Your task to perform on an android device: turn notification dots on Image 0: 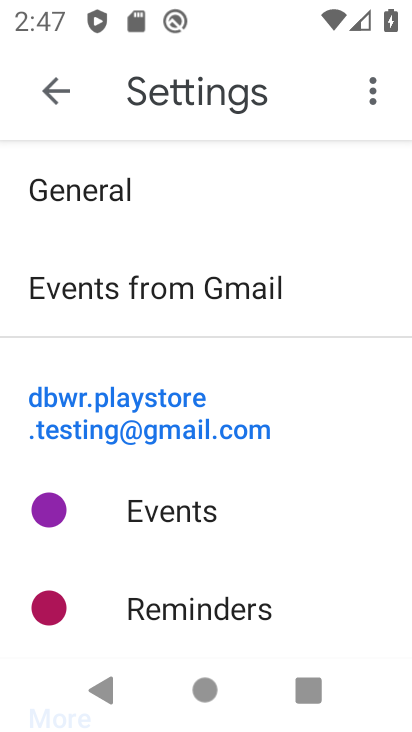
Step 0: press home button
Your task to perform on an android device: turn notification dots on Image 1: 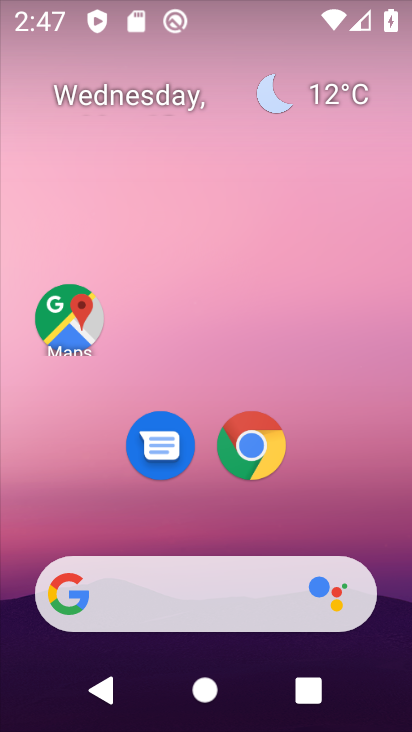
Step 1: drag from (319, 507) to (295, 171)
Your task to perform on an android device: turn notification dots on Image 2: 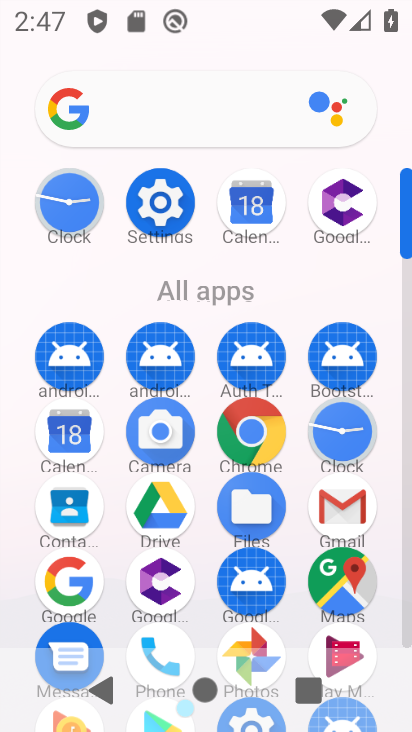
Step 2: click (149, 211)
Your task to perform on an android device: turn notification dots on Image 3: 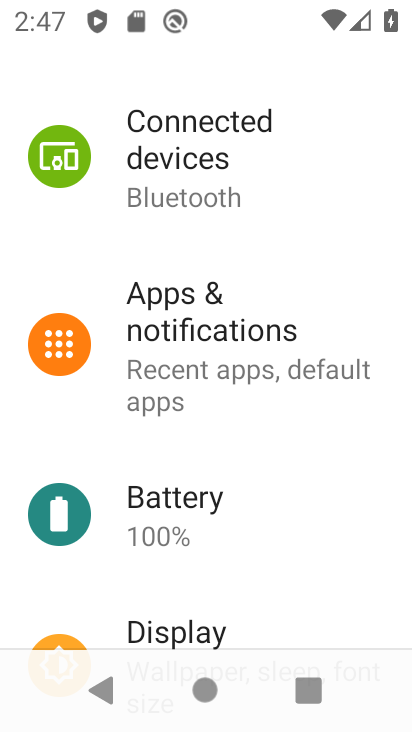
Step 3: click (266, 391)
Your task to perform on an android device: turn notification dots on Image 4: 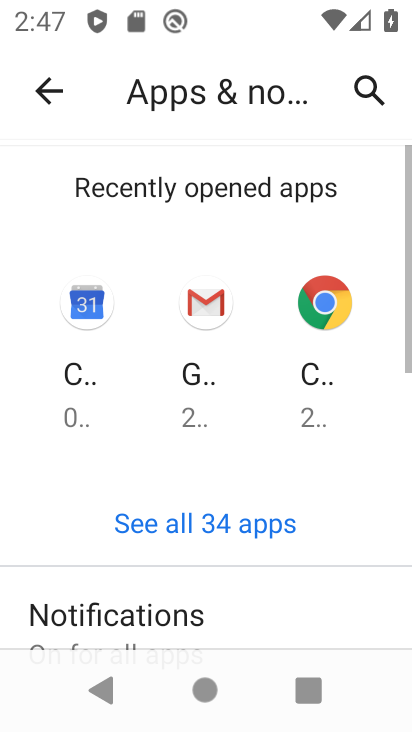
Step 4: drag from (249, 594) to (265, 216)
Your task to perform on an android device: turn notification dots on Image 5: 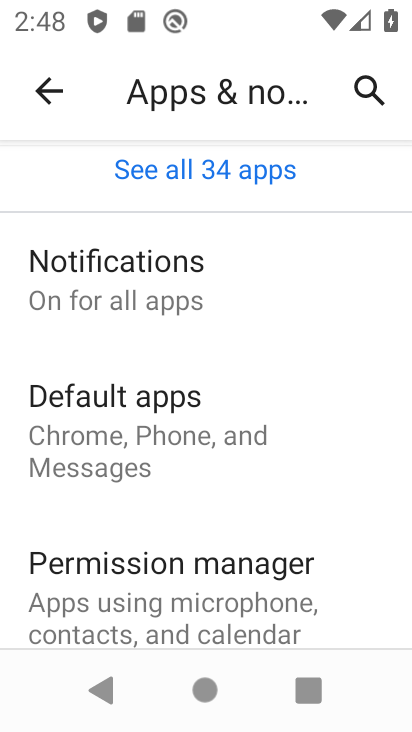
Step 5: click (228, 275)
Your task to perform on an android device: turn notification dots on Image 6: 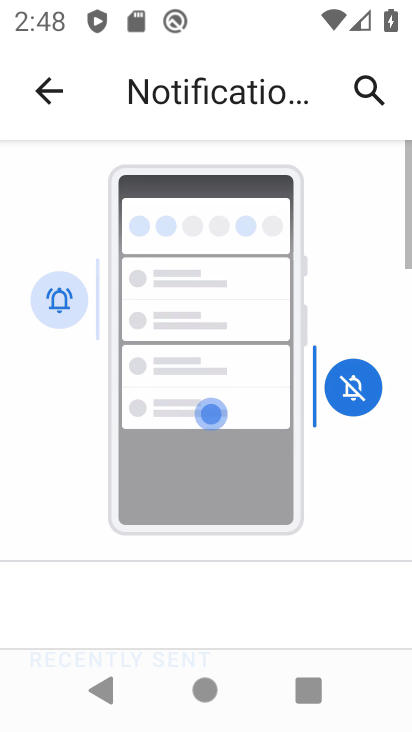
Step 6: drag from (211, 617) to (194, 202)
Your task to perform on an android device: turn notification dots on Image 7: 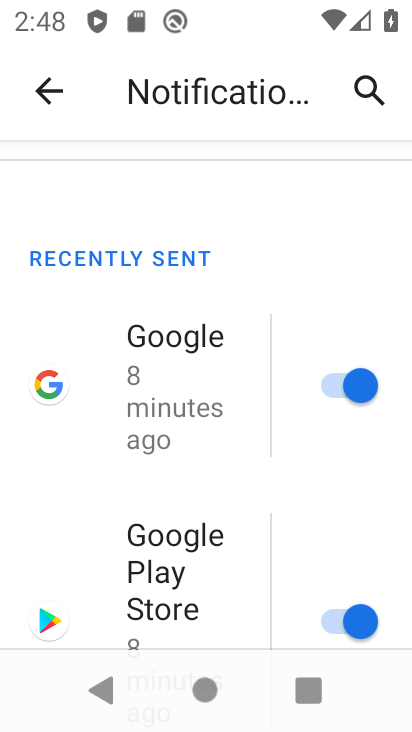
Step 7: drag from (187, 523) to (186, 128)
Your task to perform on an android device: turn notification dots on Image 8: 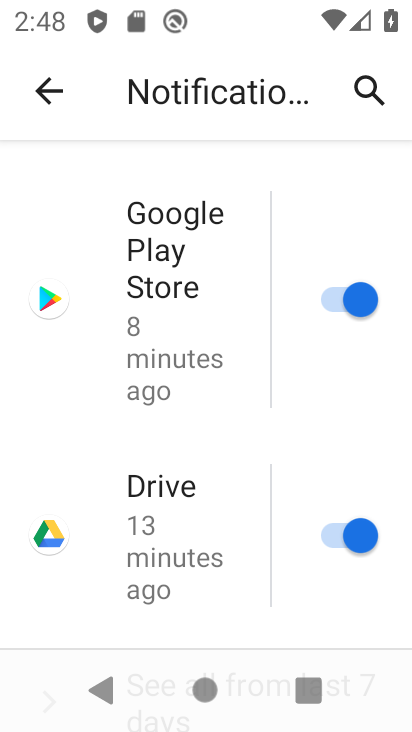
Step 8: drag from (198, 623) to (208, 40)
Your task to perform on an android device: turn notification dots on Image 9: 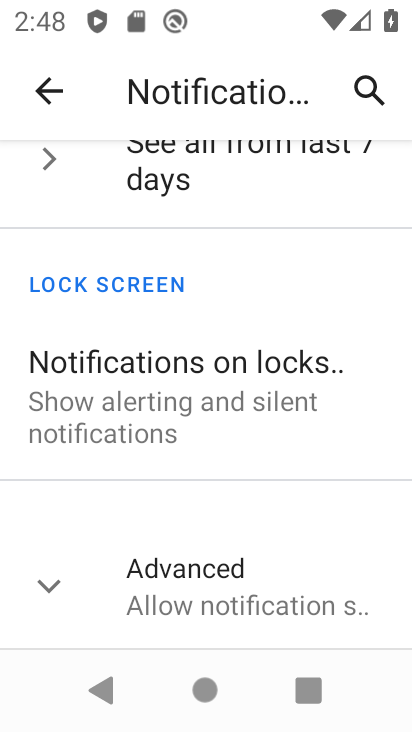
Step 9: drag from (245, 546) to (240, 95)
Your task to perform on an android device: turn notification dots on Image 10: 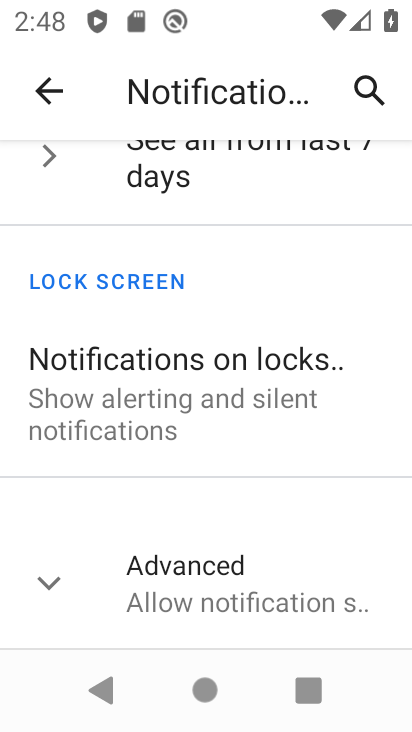
Step 10: click (282, 559)
Your task to perform on an android device: turn notification dots on Image 11: 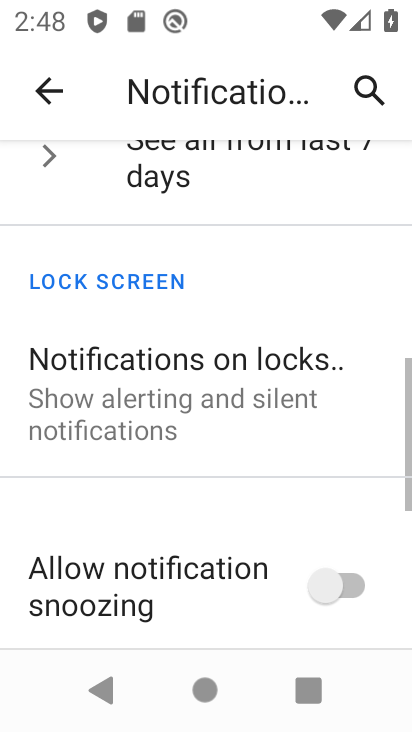
Step 11: task complete